Your task to perform on an android device: What's the weather today? Image 0: 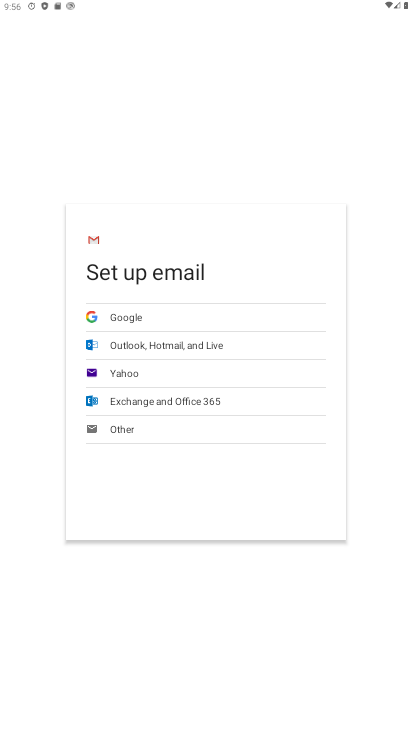
Step 0: press home button
Your task to perform on an android device: What's the weather today? Image 1: 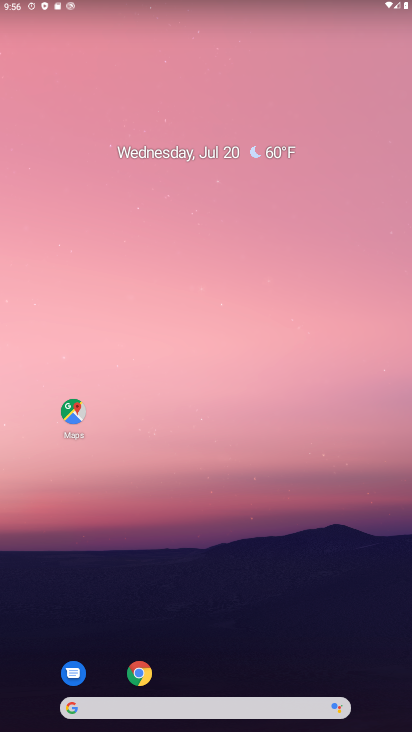
Step 1: drag from (224, 706) to (240, 9)
Your task to perform on an android device: What's the weather today? Image 2: 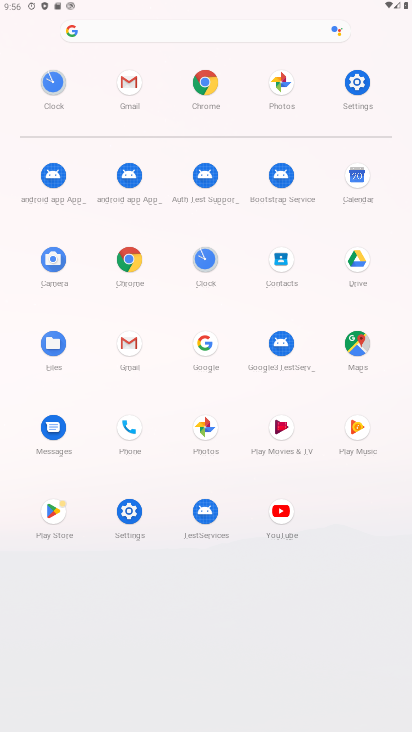
Step 2: click (196, 23)
Your task to perform on an android device: What's the weather today? Image 3: 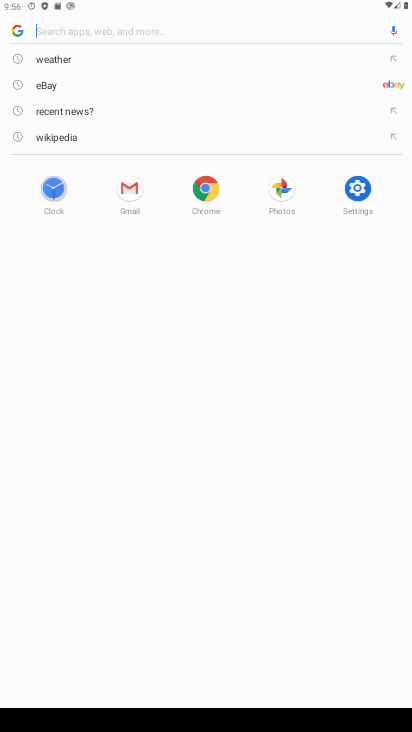
Step 3: type "weather"
Your task to perform on an android device: What's the weather today? Image 4: 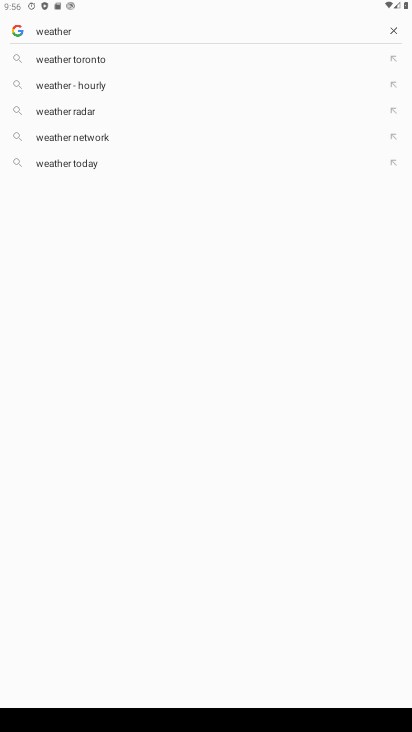
Step 4: click (78, 158)
Your task to perform on an android device: What's the weather today? Image 5: 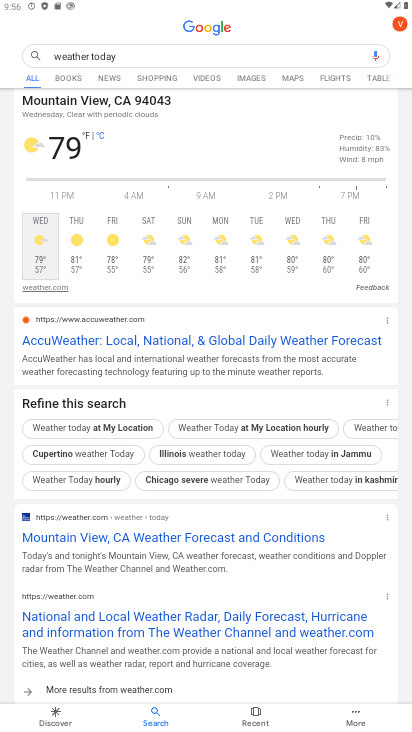
Step 5: task complete